Your task to perform on an android device: Open Wikipedia Image 0: 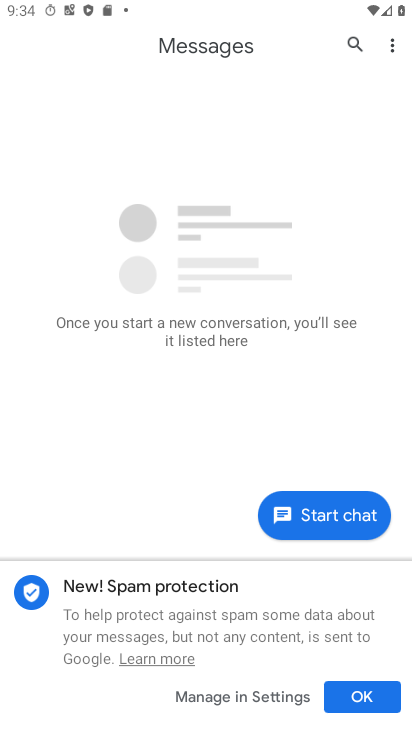
Step 0: press home button
Your task to perform on an android device: Open Wikipedia Image 1: 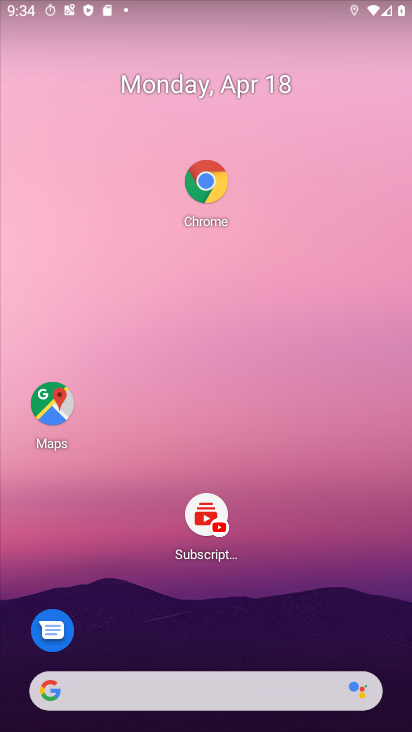
Step 1: drag from (182, 611) to (346, 128)
Your task to perform on an android device: Open Wikipedia Image 2: 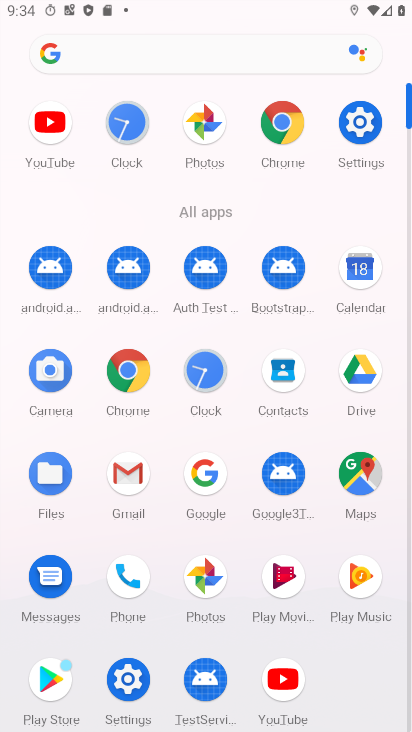
Step 2: click (282, 120)
Your task to perform on an android device: Open Wikipedia Image 3: 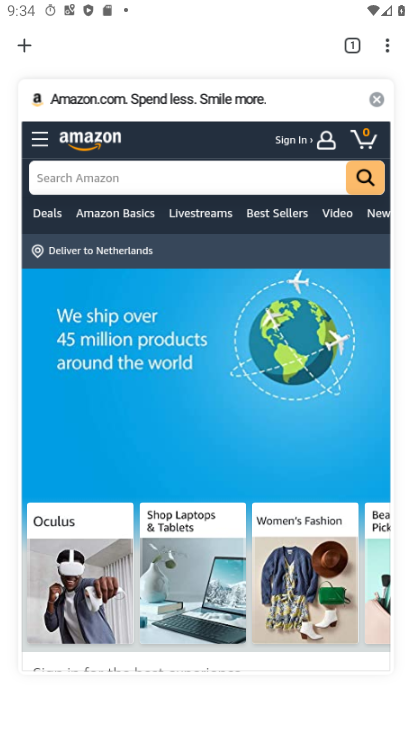
Step 3: click (24, 42)
Your task to perform on an android device: Open Wikipedia Image 4: 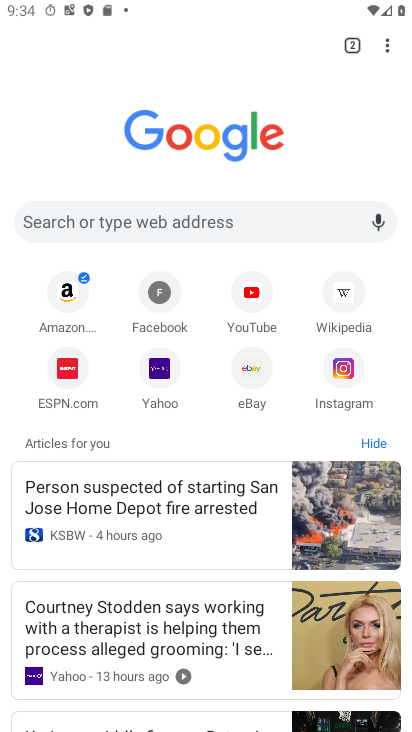
Step 4: click (122, 222)
Your task to perform on an android device: Open Wikipedia Image 5: 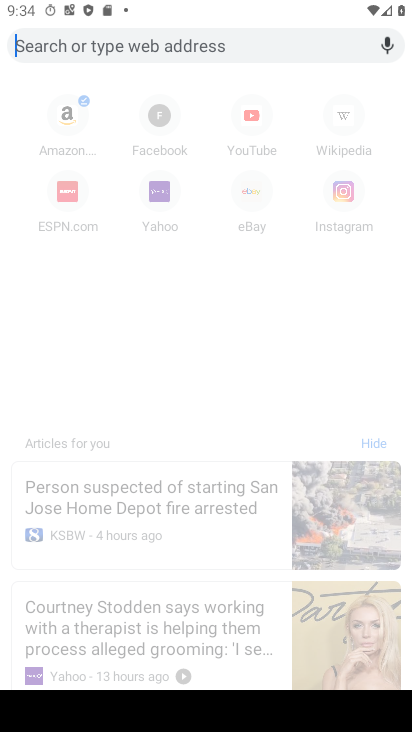
Step 5: type "wikipedia"
Your task to perform on an android device: Open Wikipedia Image 6: 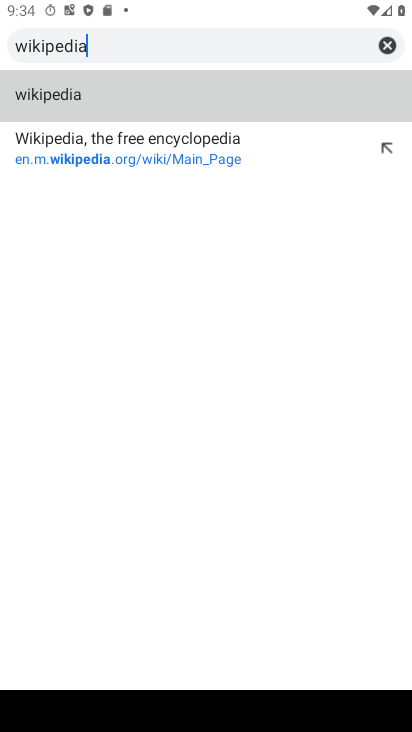
Step 6: task complete